Your task to perform on an android device: uninstall "Duolingo: language lessons" Image 0: 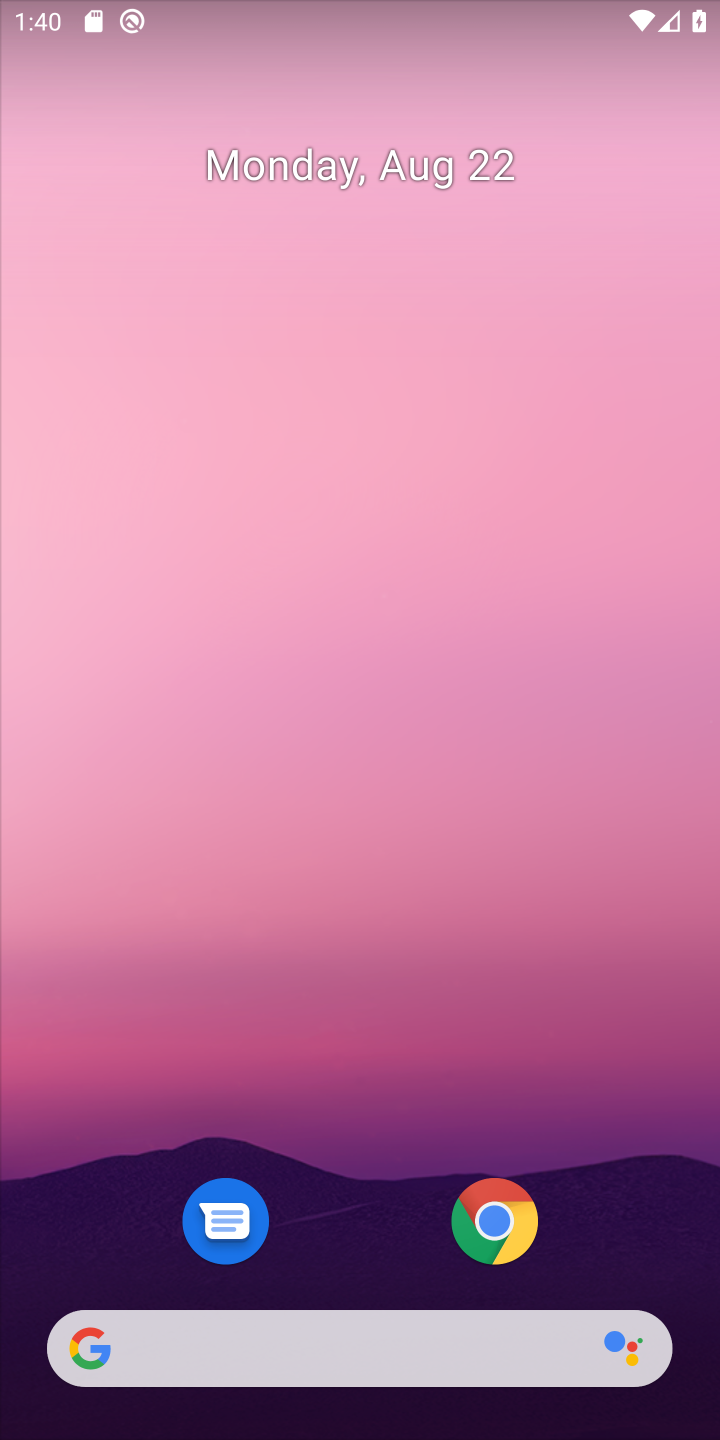
Step 0: press home button
Your task to perform on an android device: uninstall "Duolingo: language lessons" Image 1: 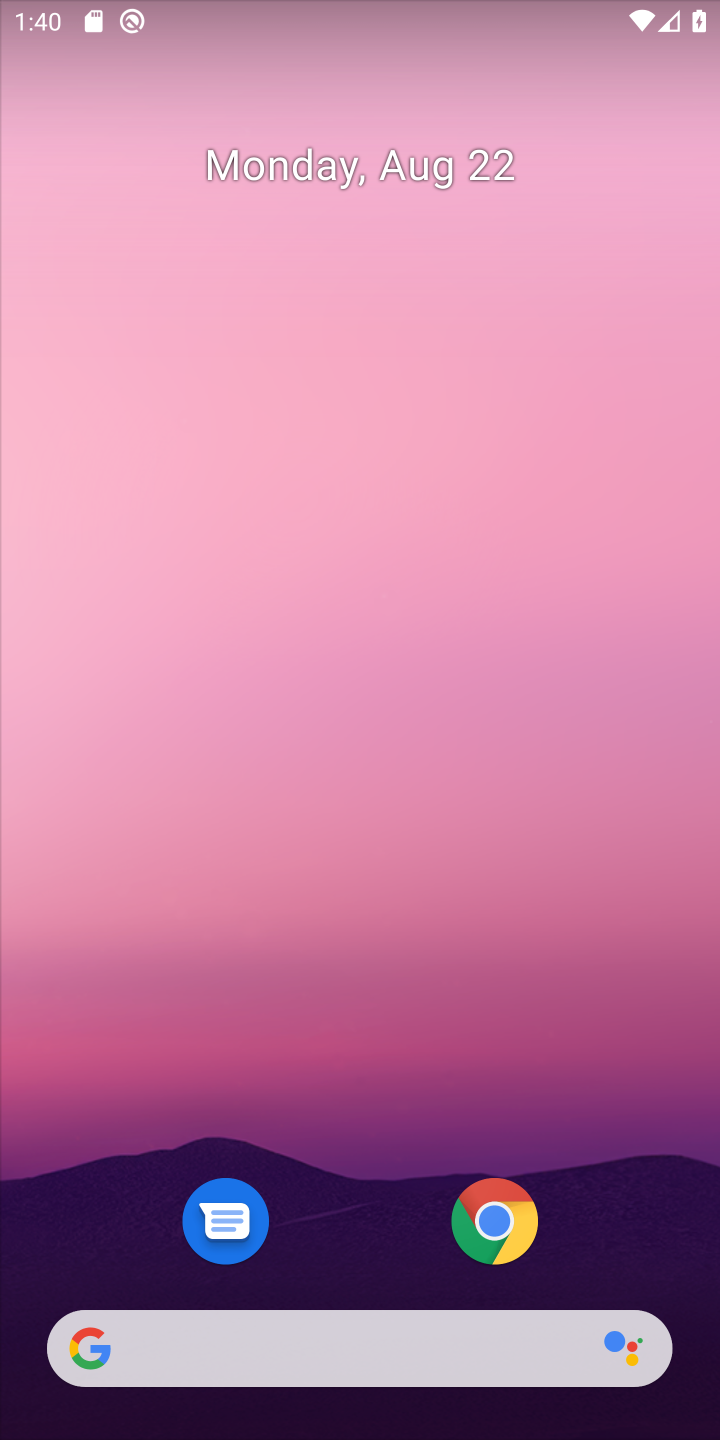
Step 1: drag from (366, 1255) to (440, 283)
Your task to perform on an android device: uninstall "Duolingo: language lessons" Image 2: 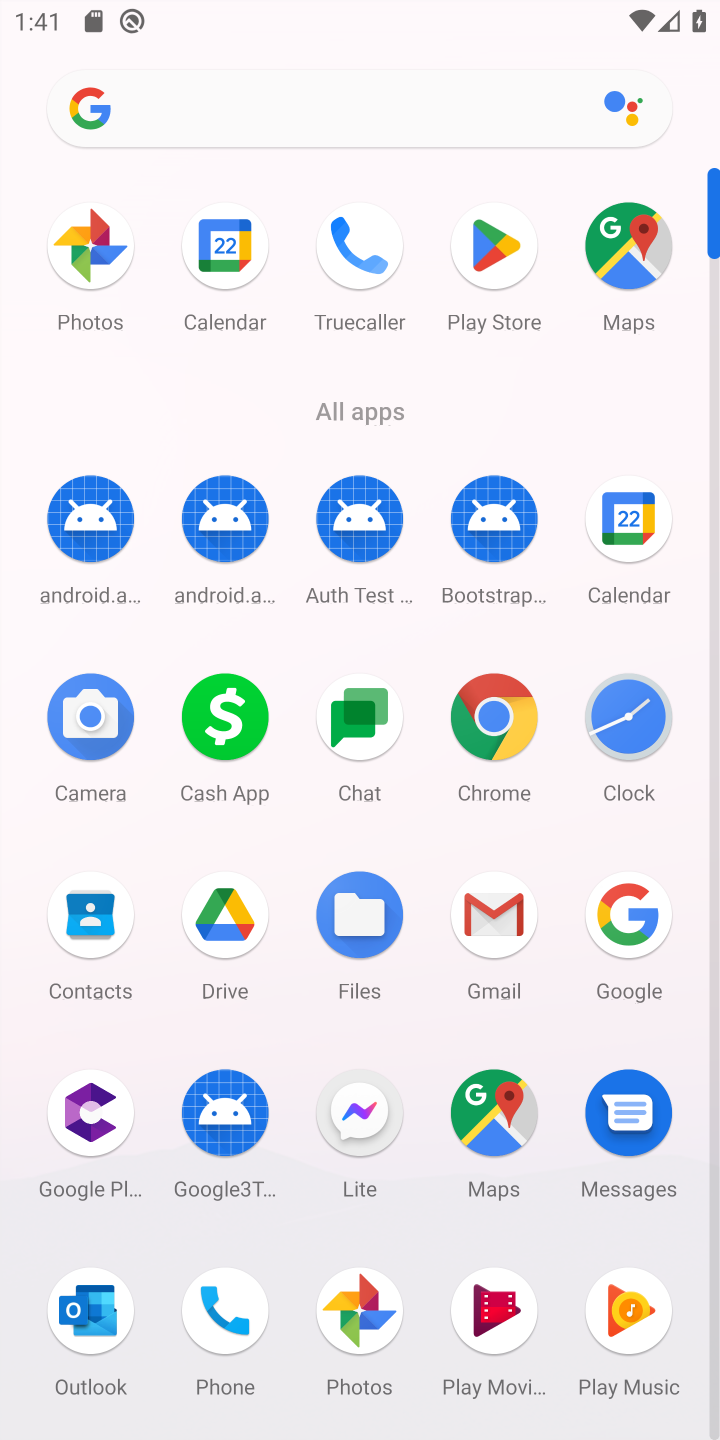
Step 2: click (490, 245)
Your task to perform on an android device: uninstall "Duolingo: language lessons" Image 3: 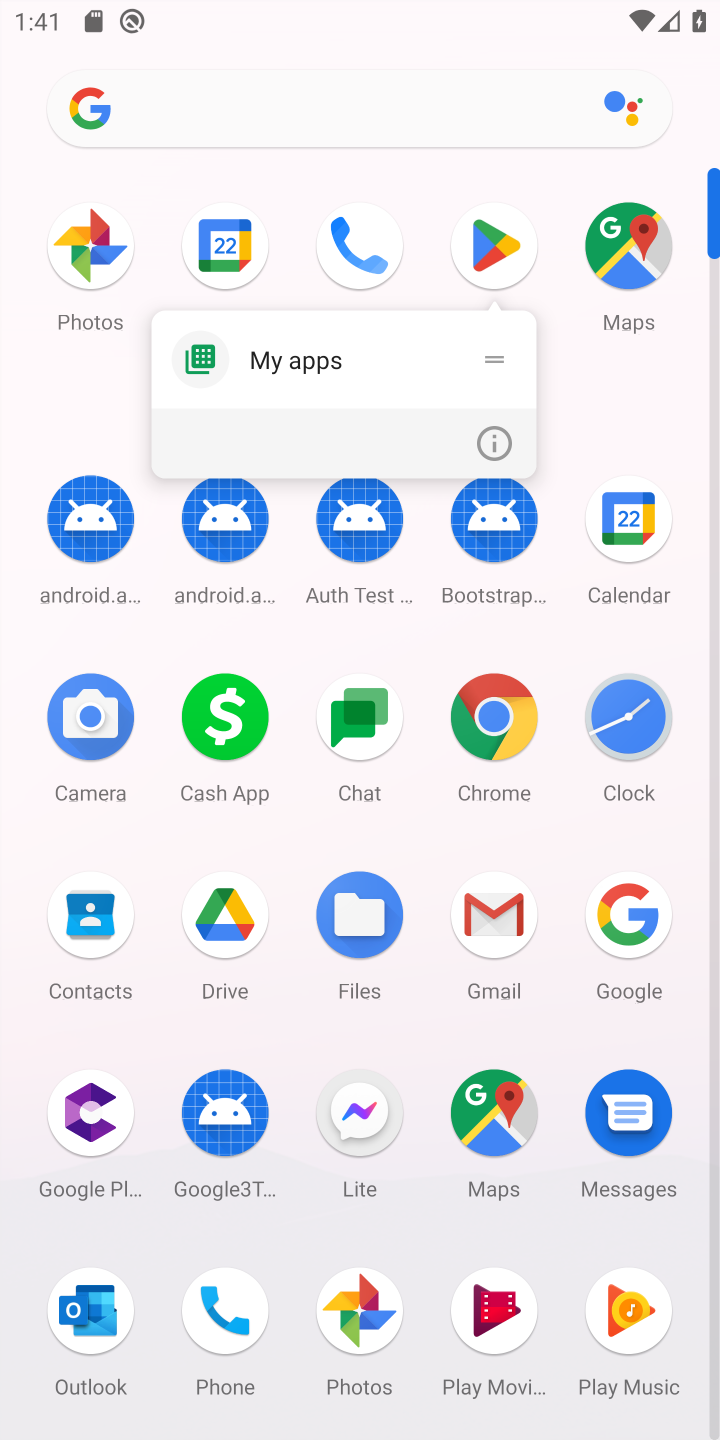
Step 3: click (490, 245)
Your task to perform on an android device: uninstall "Duolingo: language lessons" Image 4: 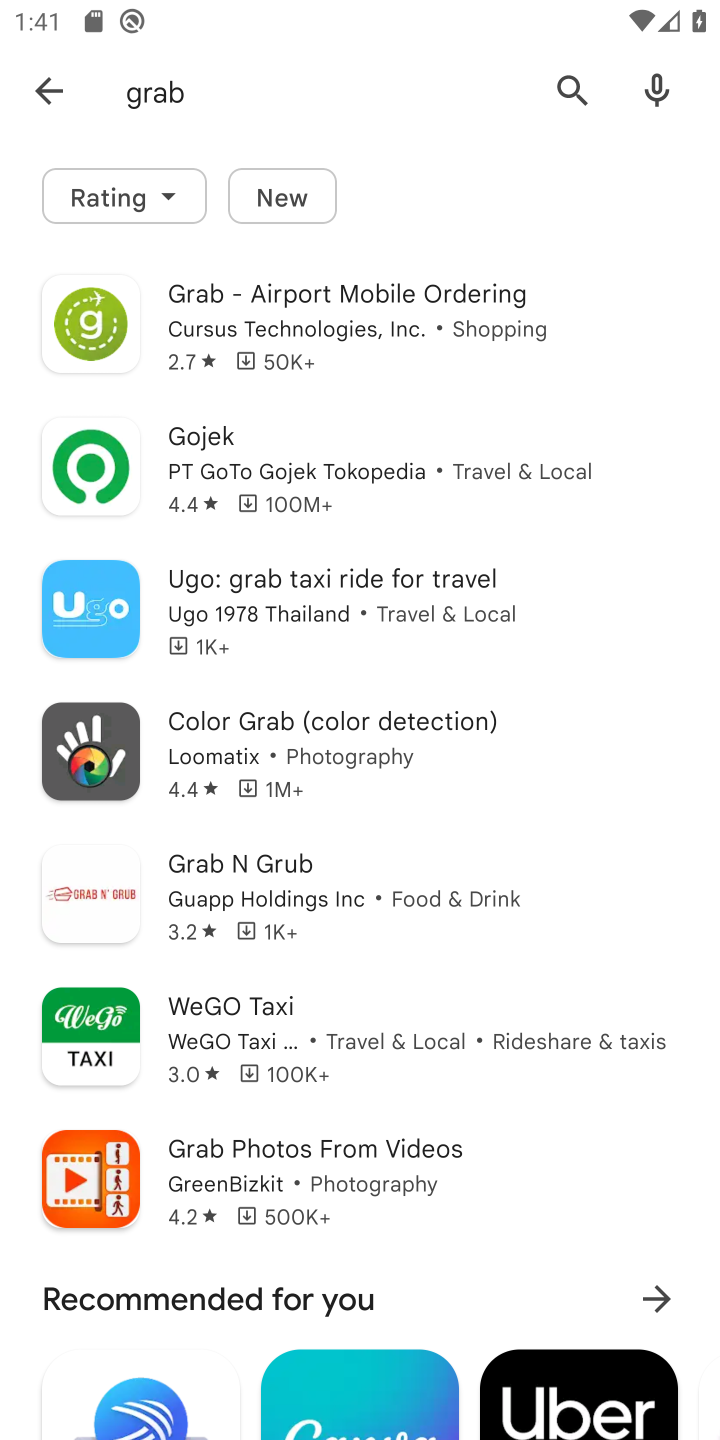
Step 4: task complete